Your task to perform on an android device: open chrome privacy settings Image 0: 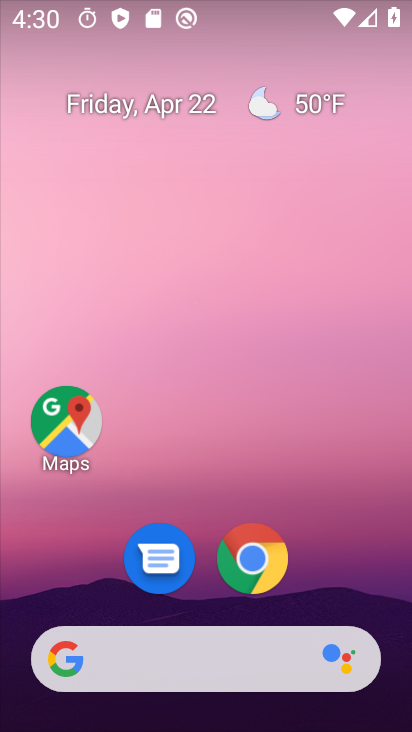
Step 0: click (256, 552)
Your task to perform on an android device: open chrome privacy settings Image 1: 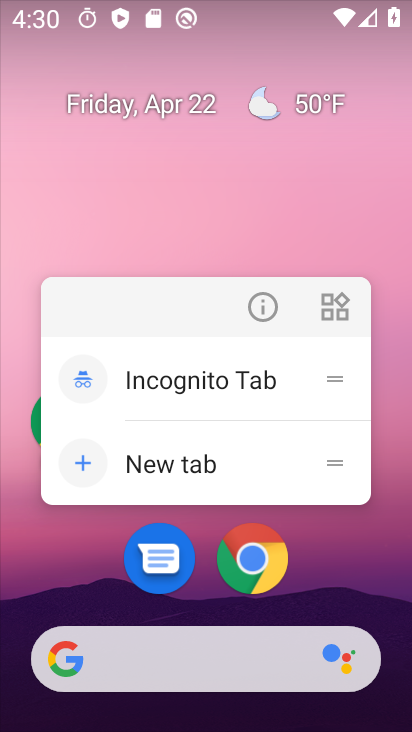
Step 1: click (259, 582)
Your task to perform on an android device: open chrome privacy settings Image 2: 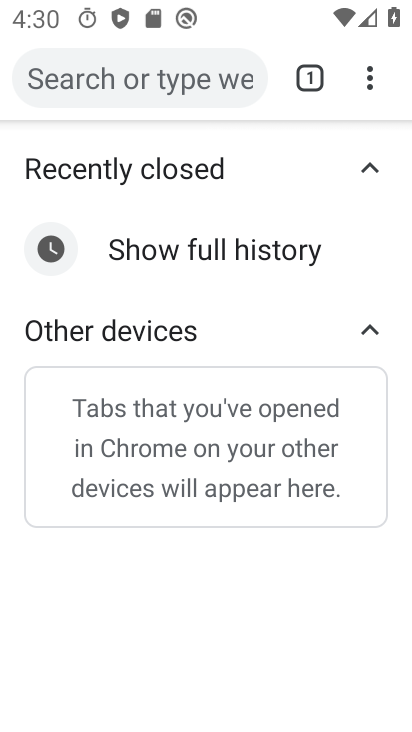
Step 2: click (368, 94)
Your task to perform on an android device: open chrome privacy settings Image 3: 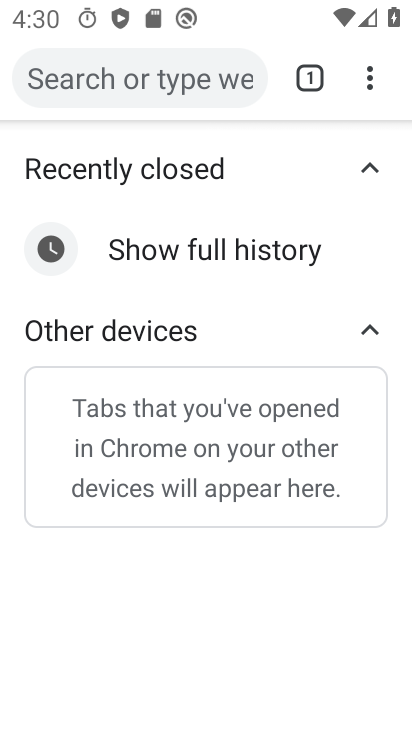
Step 3: click (369, 87)
Your task to perform on an android device: open chrome privacy settings Image 4: 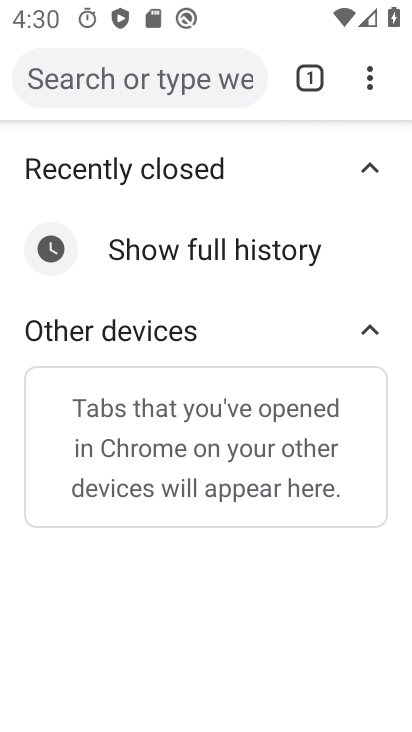
Step 4: click (371, 85)
Your task to perform on an android device: open chrome privacy settings Image 5: 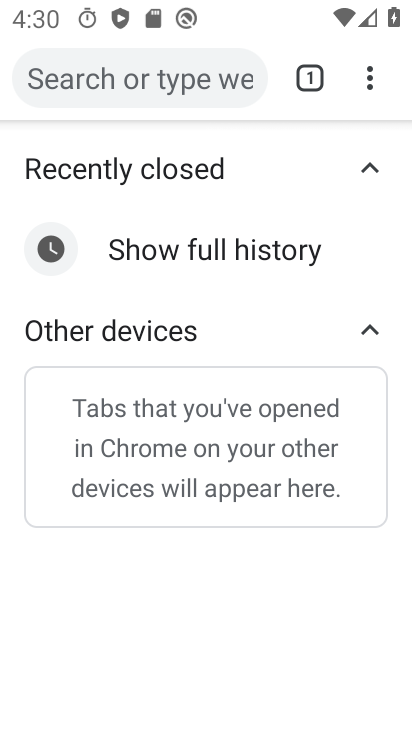
Step 5: click (366, 85)
Your task to perform on an android device: open chrome privacy settings Image 6: 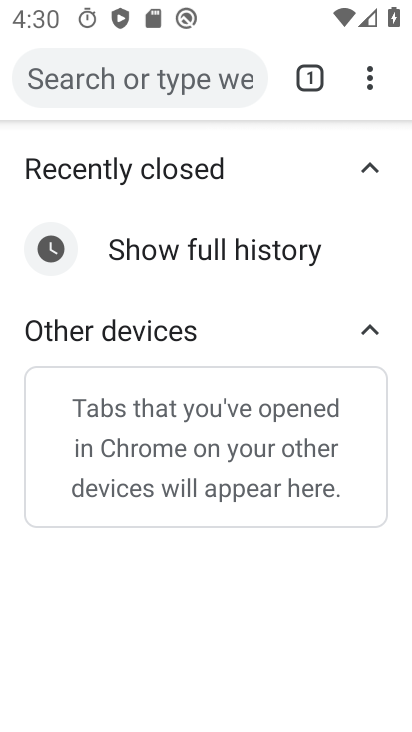
Step 6: click (369, 79)
Your task to perform on an android device: open chrome privacy settings Image 7: 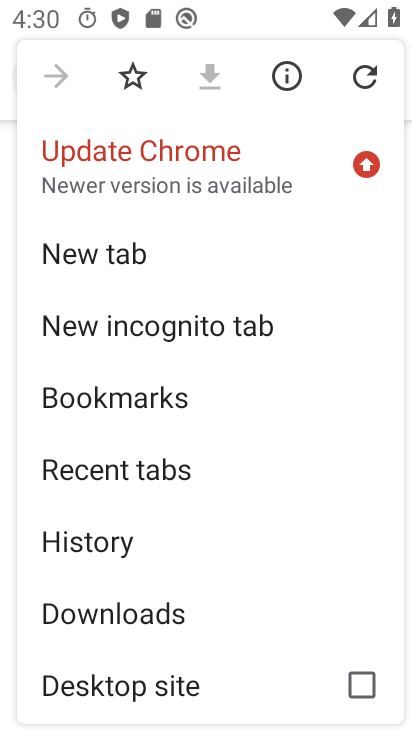
Step 7: drag from (188, 618) to (203, 302)
Your task to perform on an android device: open chrome privacy settings Image 8: 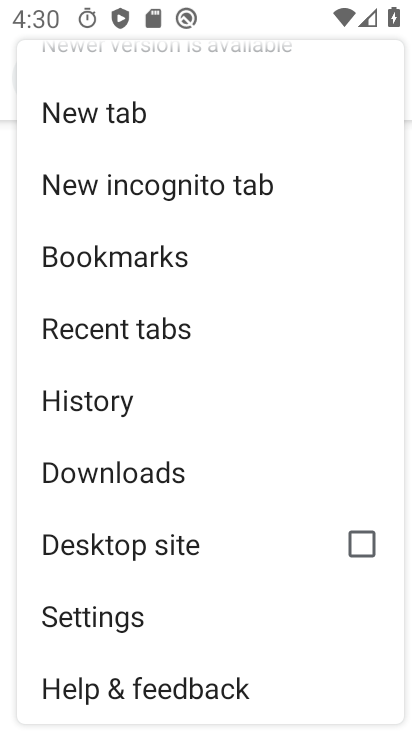
Step 8: click (88, 629)
Your task to perform on an android device: open chrome privacy settings Image 9: 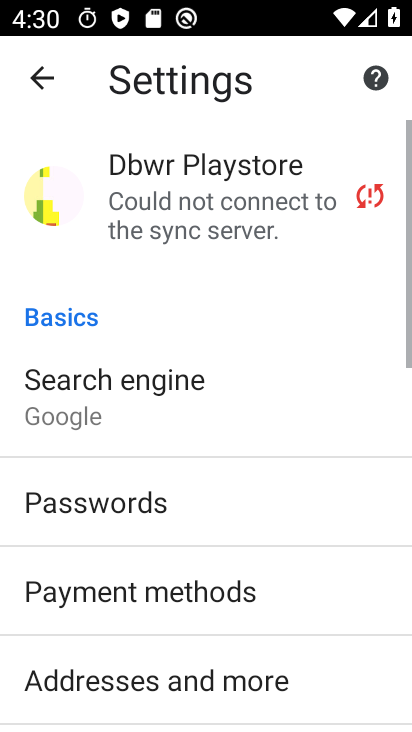
Step 9: drag from (131, 643) to (193, 369)
Your task to perform on an android device: open chrome privacy settings Image 10: 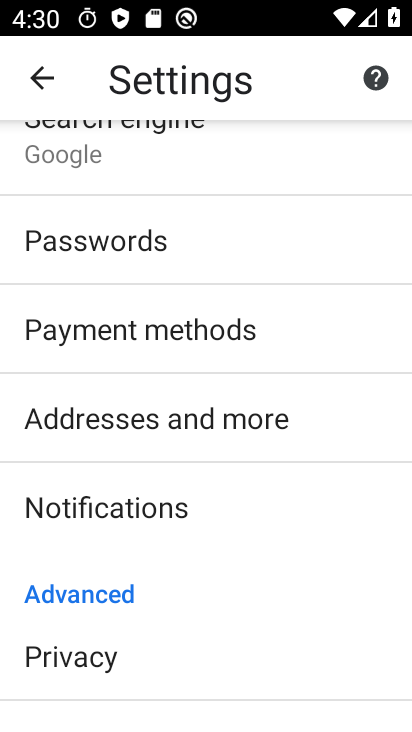
Step 10: click (78, 665)
Your task to perform on an android device: open chrome privacy settings Image 11: 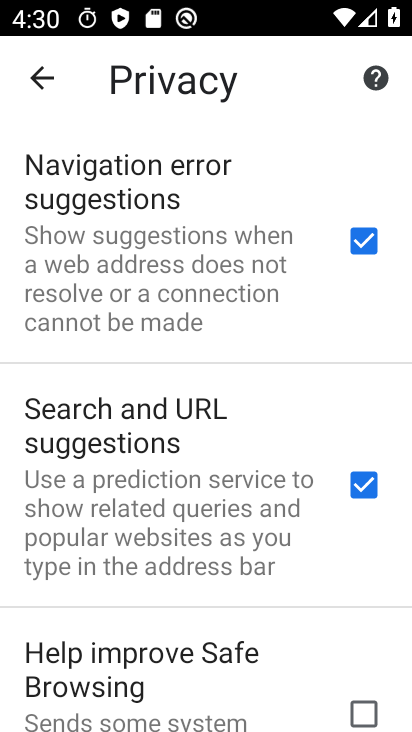
Step 11: task complete